Your task to perform on an android device: Open Wikipedia Image 0: 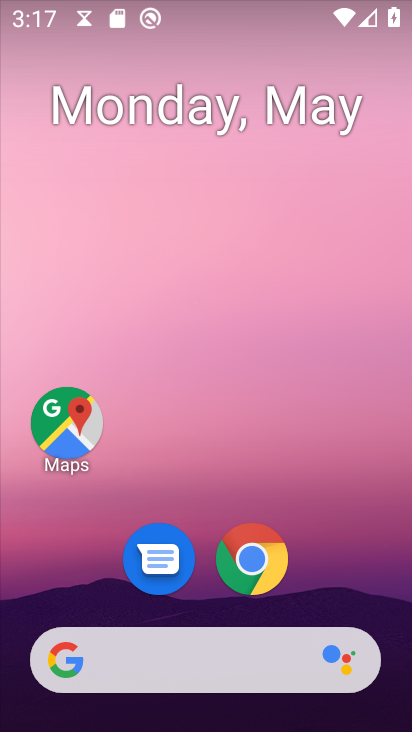
Step 0: drag from (321, 502) to (329, 256)
Your task to perform on an android device: Open Wikipedia Image 1: 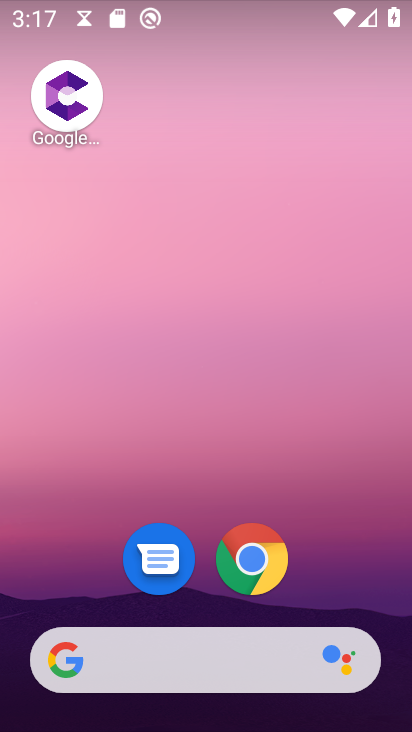
Step 1: drag from (326, 545) to (362, 231)
Your task to perform on an android device: Open Wikipedia Image 2: 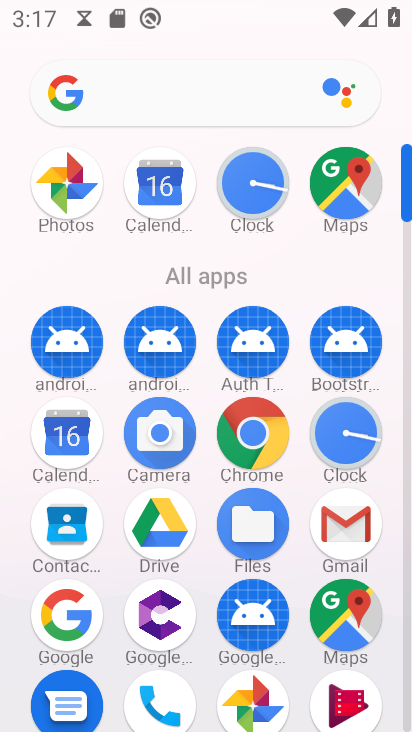
Step 2: drag from (338, 182) to (347, 125)
Your task to perform on an android device: Open Wikipedia Image 3: 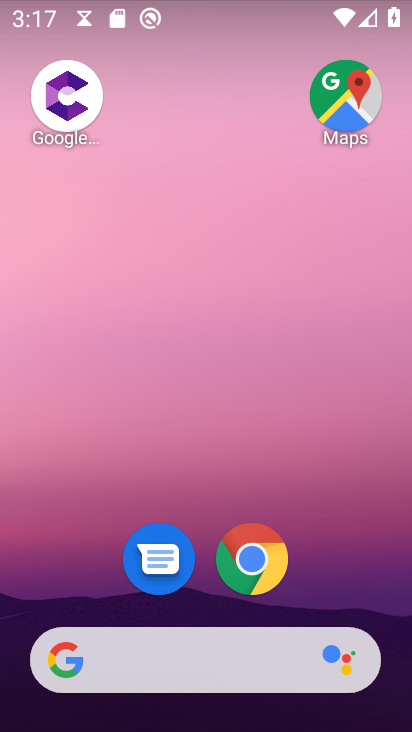
Step 3: click (255, 559)
Your task to perform on an android device: Open Wikipedia Image 4: 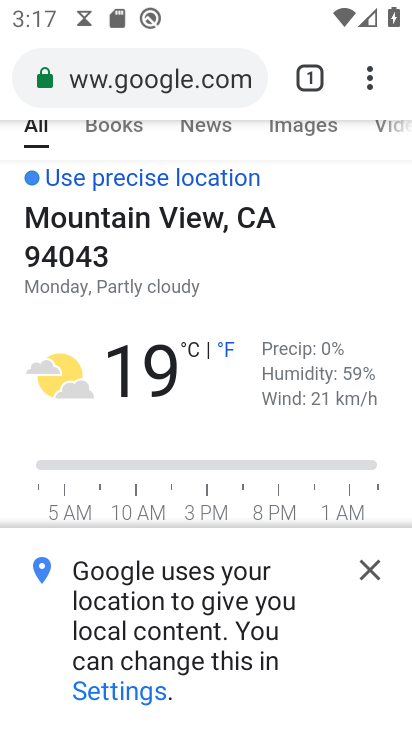
Step 4: click (345, 77)
Your task to perform on an android device: Open Wikipedia Image 5: 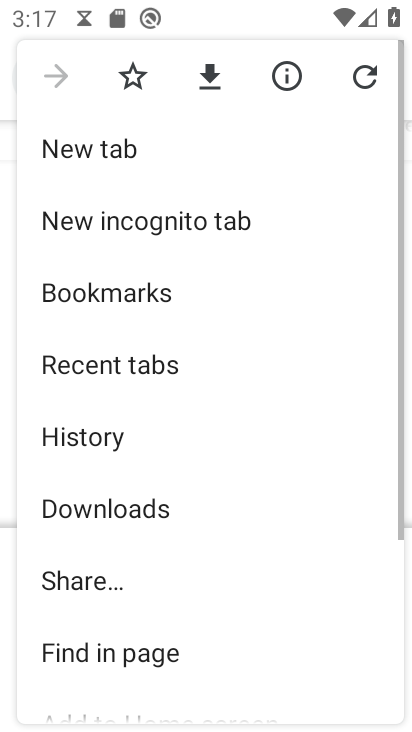
Step 5: click (104, 162)
Your task to perform on an android device: Open Wikipedia Image 6: 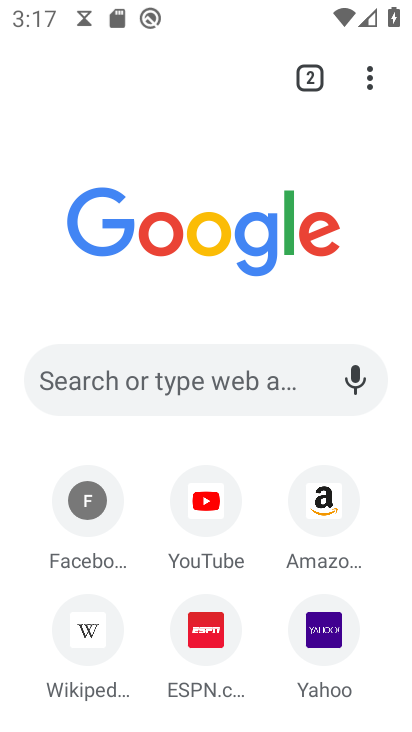
Step 6: drag from (141, 549) to (173, 421)
Your task to perform on an android device: Open Wikipedia Image 7: 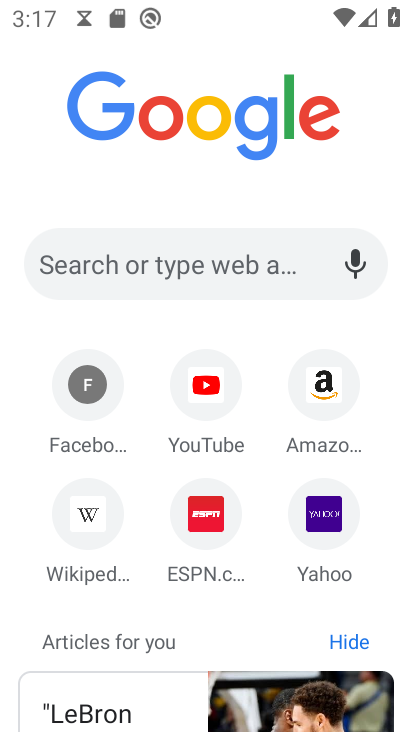
Step 7: click (106, 479)
Your task to perform on an android device: Open Wikipedia Image 8: 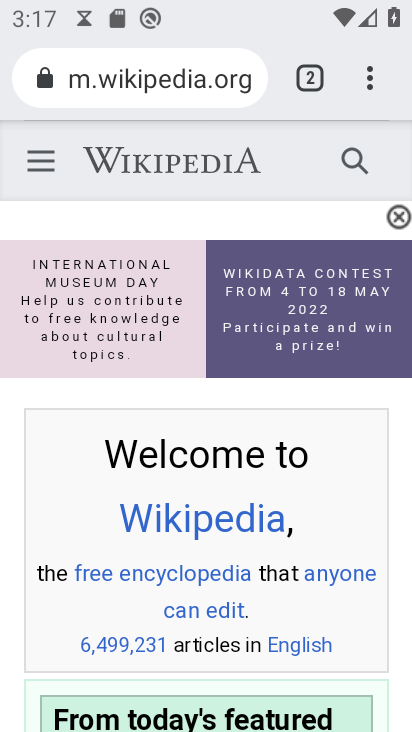
Step 8: task complete